Your task to perform on an android device: Go to internet settings Image 0: 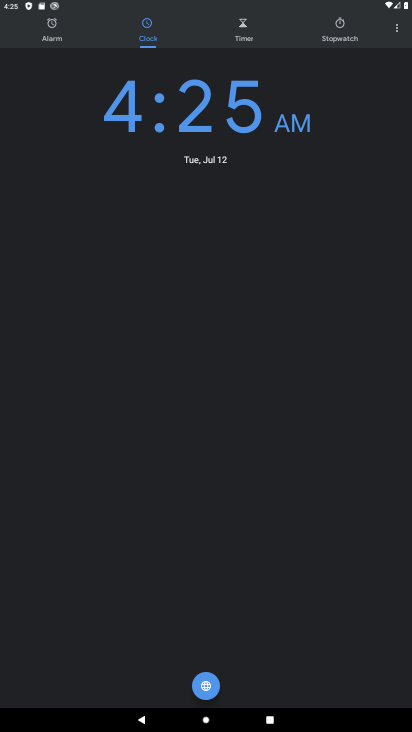
Step 0: press home button
Your task to perform on an android device: Go to internet settings Image 1: 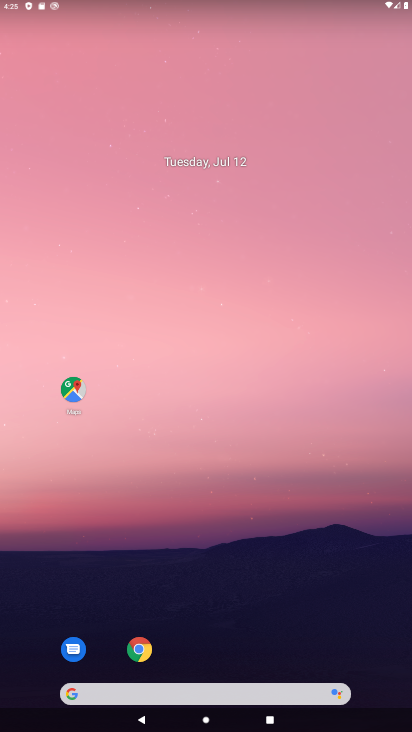
Step 1: drag from (214, 695) to (175, 135)
Your task to perform on an android device: Go to internet settings Image 2: 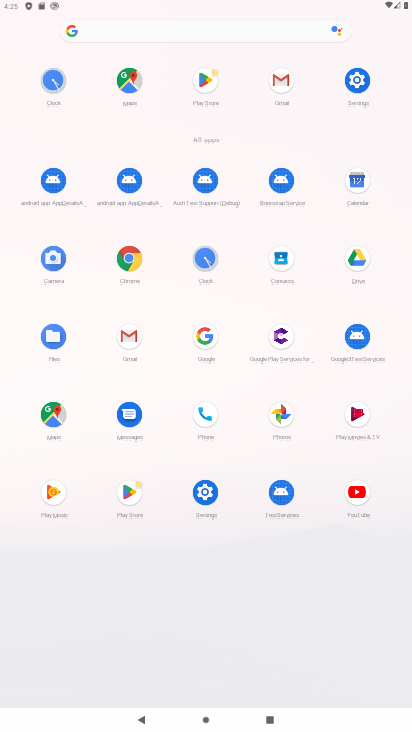
Step 2: click (206, 492)
Your task to perform on an android device: Go to internet settings Image 3: 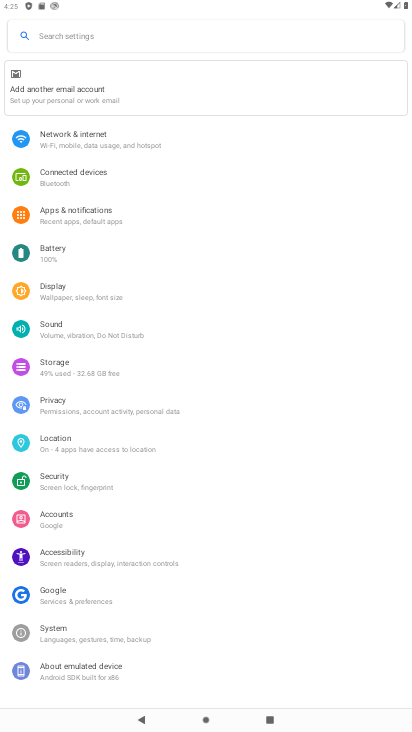
Step 3: click (109, 138)
Your task to perform on an android device: Go to internet settings Image 4: 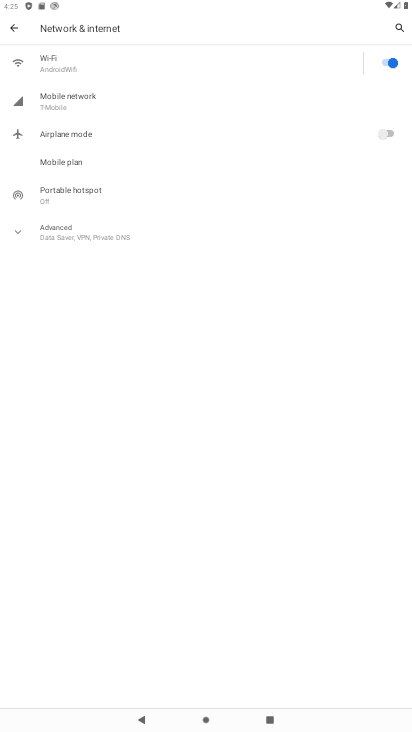
Step 4: task complete